Your task to perform on an android device: change the clock display to analog Image 0: 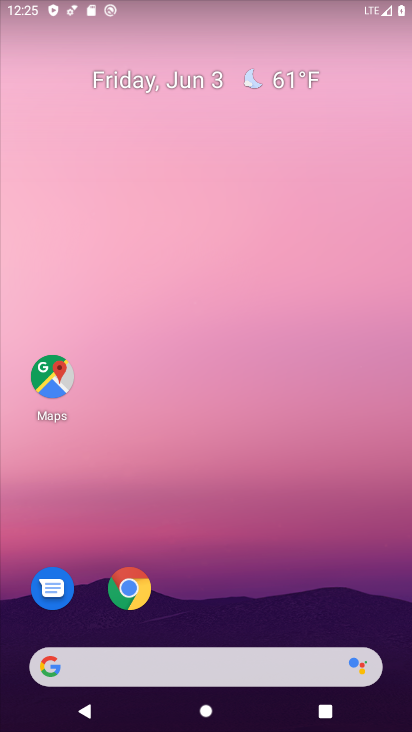
Step 0: drag from (225, 612) to (351, 130)
Your task to perform on an android device: change the clock display to analog Image 1: 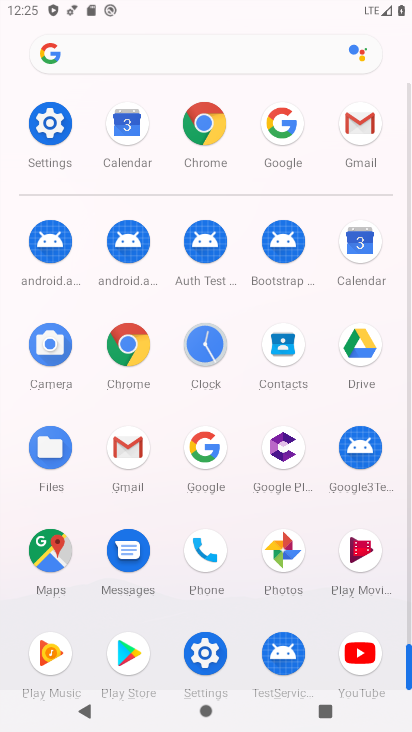
Step 1: click (206, 354)
Your task to perform on an android device: change the clock display to analog Image 2: 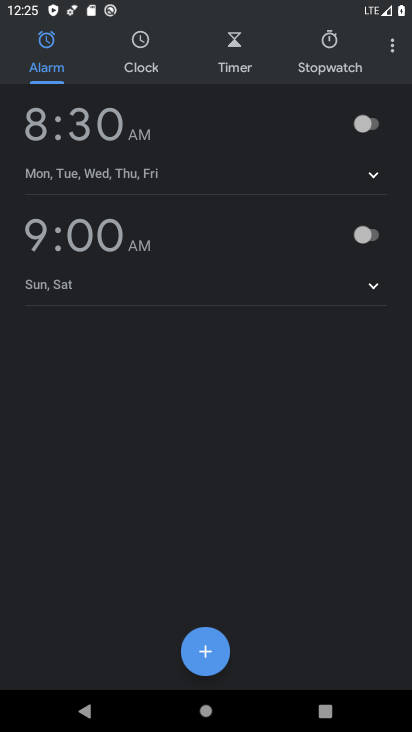
Step 2: click (393, 55)
Your task to perform on an android device: change the clock display to analog Image 3: 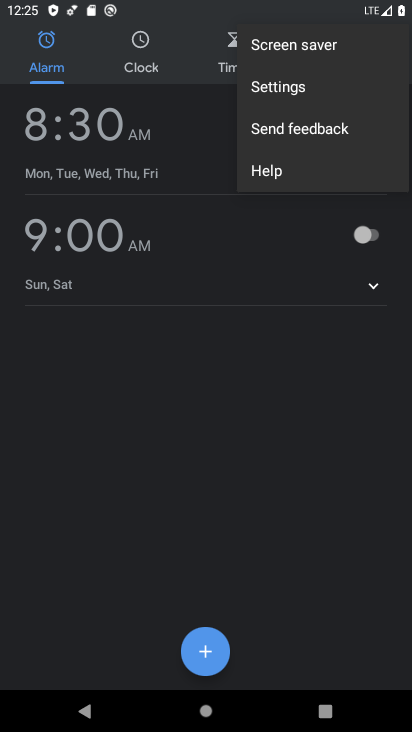
Step 3: click (307, 93)
Your task to perform on an android device: change the clock display to analog Image 4: 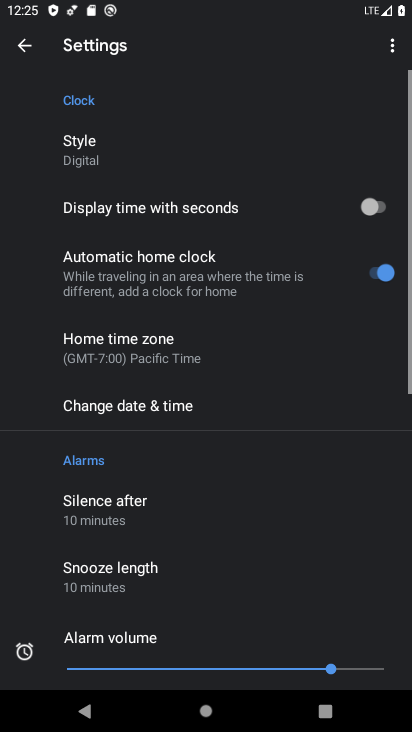
Step 4: click (207, 162)
Your task to perform on an android device: change the clock display to analog Image 5: 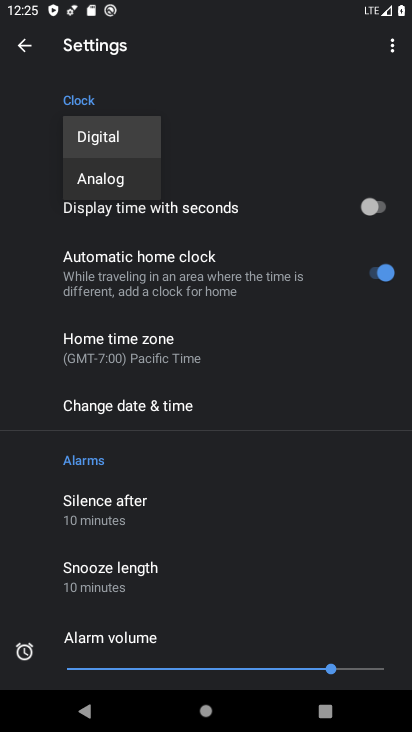
Step 5: click (122, 183)
Your task to perform on an android device: change the clock display to analog Image 6: 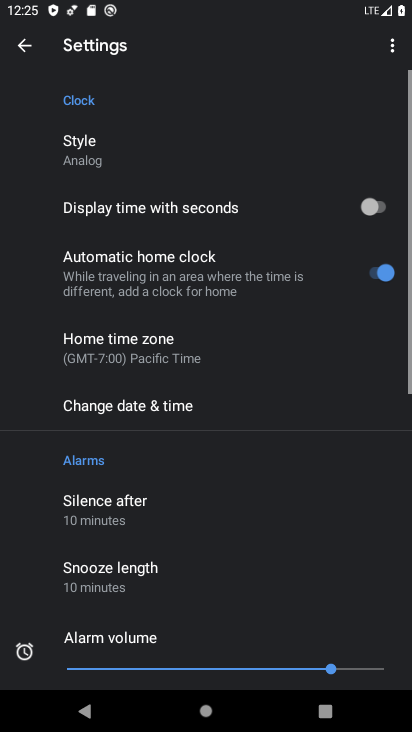
Step 6: task complete